Your task to perform on an android device: Open Chrome and go to the settings page Image 0: 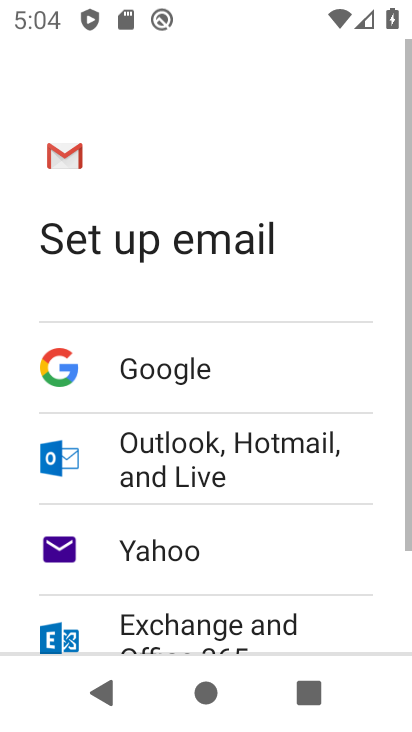
Step 0: press home button
Your task to perform on an android device: Open Chrome and go to the settings page Image 1: 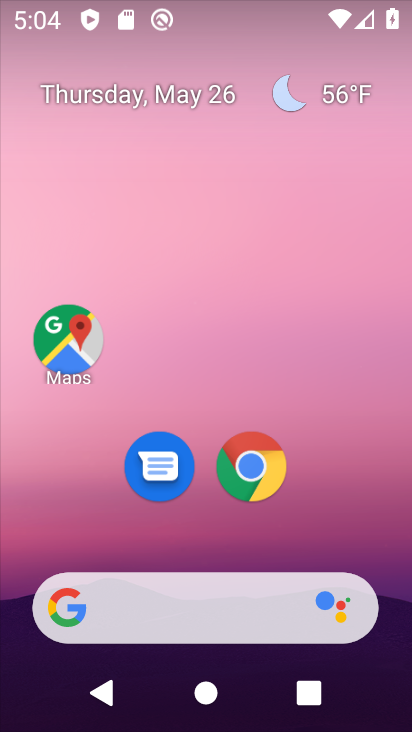
Step 1: click (244, 481)
Your task to perform on an android device: Open Chrome and go to the settings page Image 2: 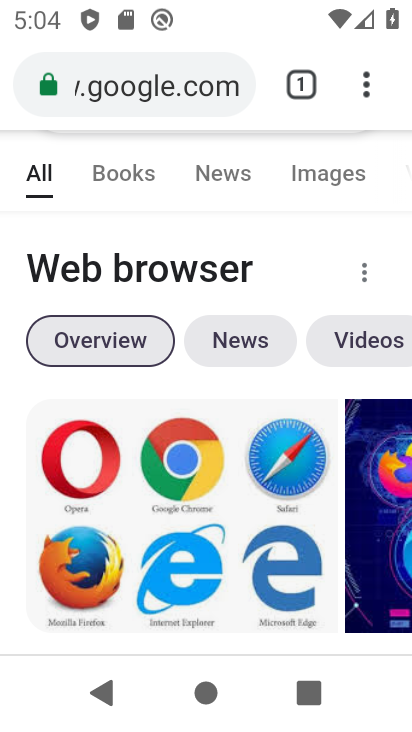
Step 2: click (362, 89)
Your task to perform on an android device: Open Chrome and go to the settings page Image 3: 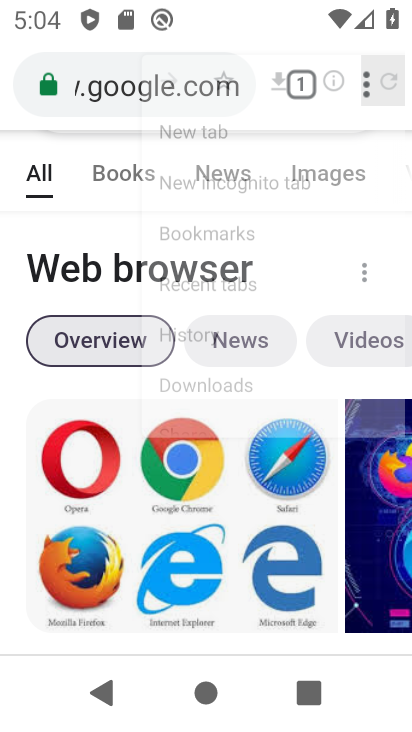
Step 3: task complete